Your task to perform on an android device: toggle javascript in the chrome app Image 0: 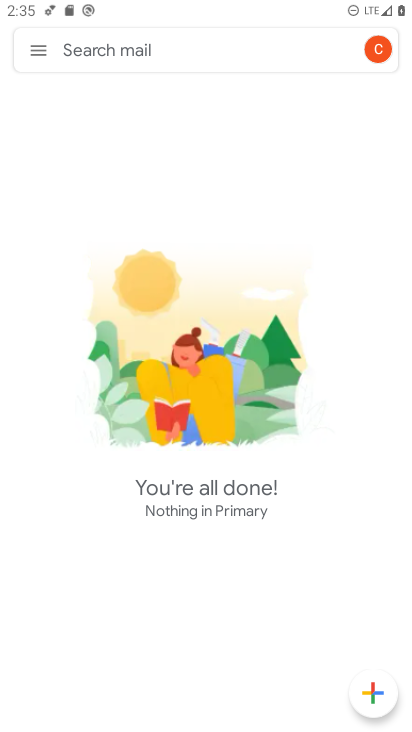
Step 0: press home button
Your task to perform on an android device: toggle javascript in the chrome app Image 1: 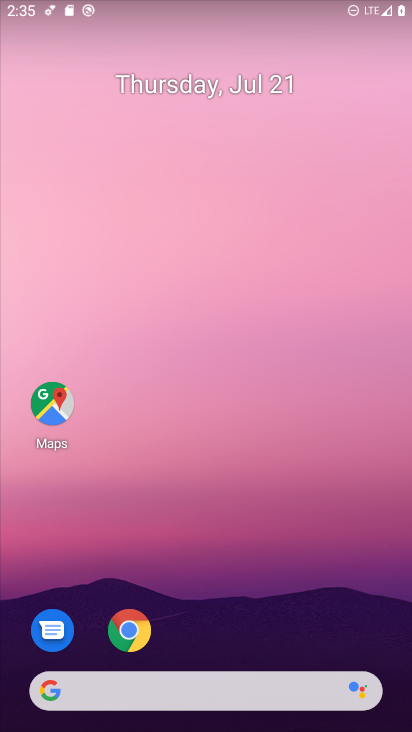
Step 1: click (138, 628)
Your task to perform on an android device: toggle javascript in the chrome app Image 2: 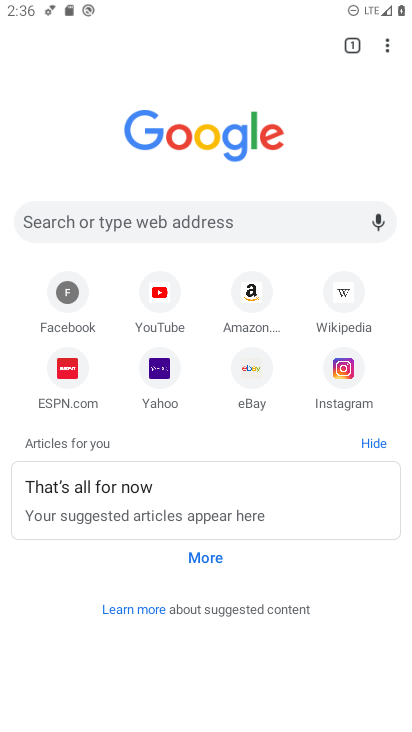
Step 2: click (392, 41)
Your task to perform on an android device: toggle javascript in the chrome app Image 3: 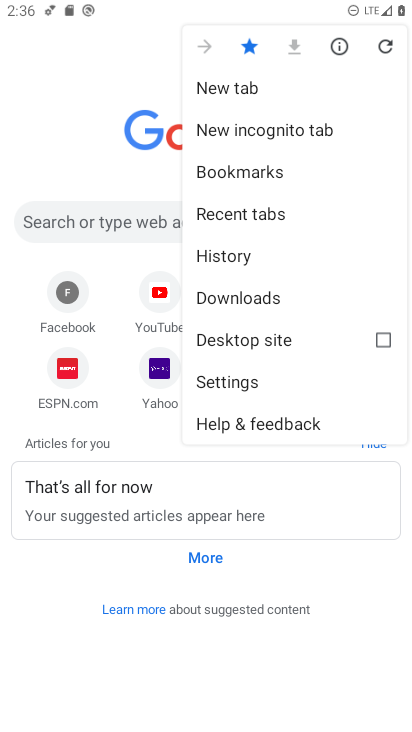
Step 3: click (267, 375)
Your task to perform on an android device: toggle javascript in the chrome app Image 4: 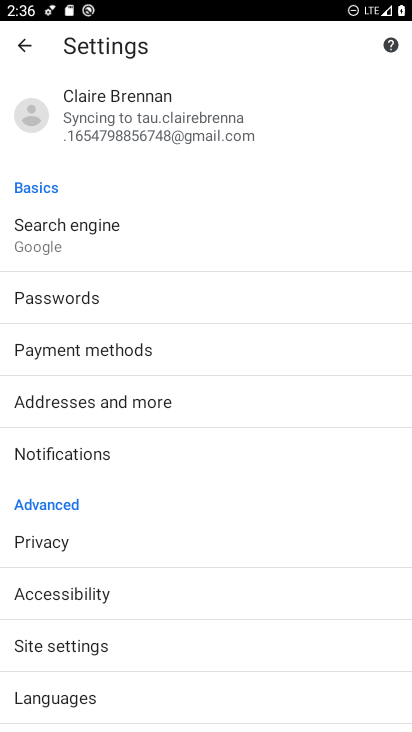
Step 4: click (129, 638)
Your task to perform on an android device: toggle javascript in the chrome app Image 5: 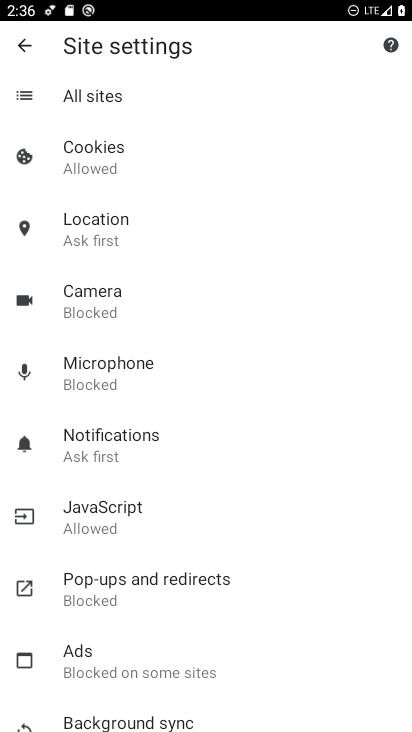
Step 5: click (123, 520)
Your task to perform on an android device: toggle javascript in the chrome app Image 6: 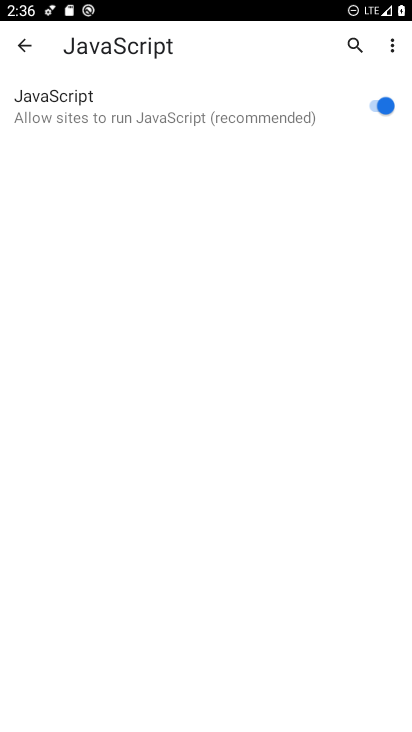
Step 6: click (371, 98)
Your task to perform on an android device: toggle javascript in the chrome app Image 7: 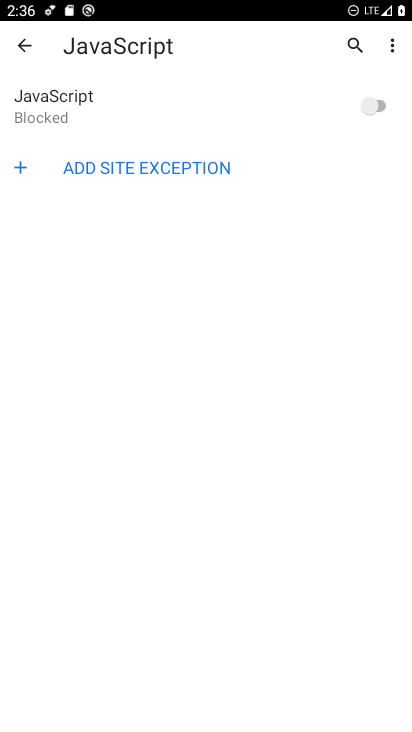
Step 7: task complete